Your task to perform on an android device: Open my contact list Image 0: 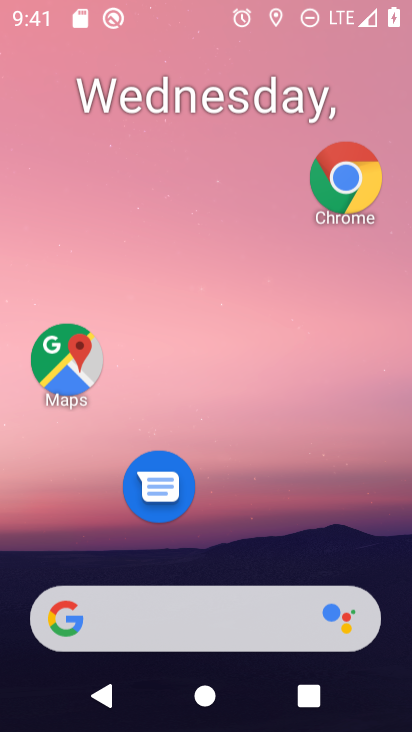
Step 0: click (310, 91)
Your task to perform on an android device: Open my contact list Image 1: 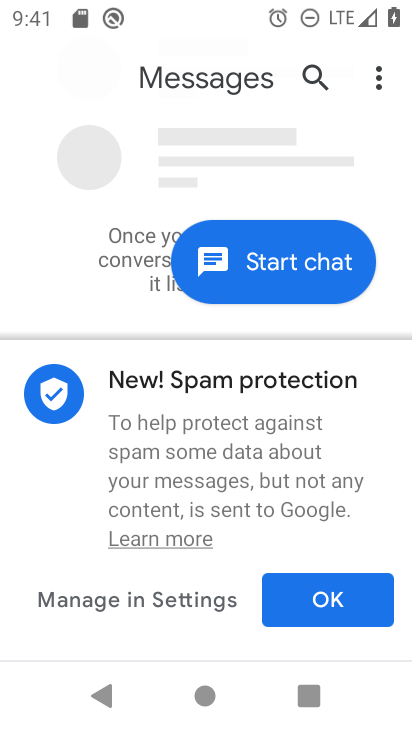
Step 1: press home button
Your task to perform on an android device: Open my contact list Image 2: 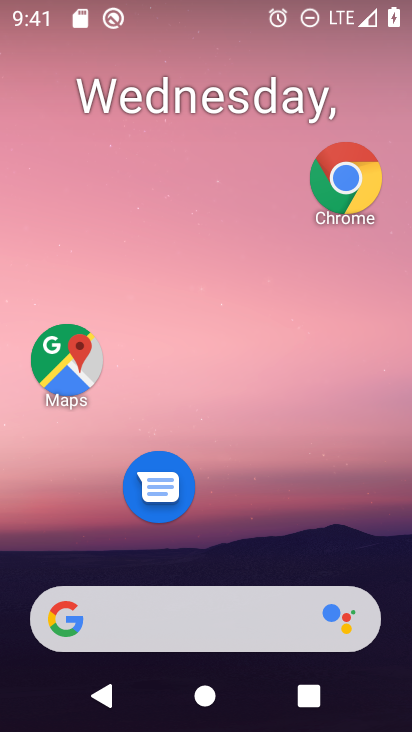
Step 2: drag from (271, 626) to (258, 236)
Your task to perform on an android device: Open my contact list Image 3: 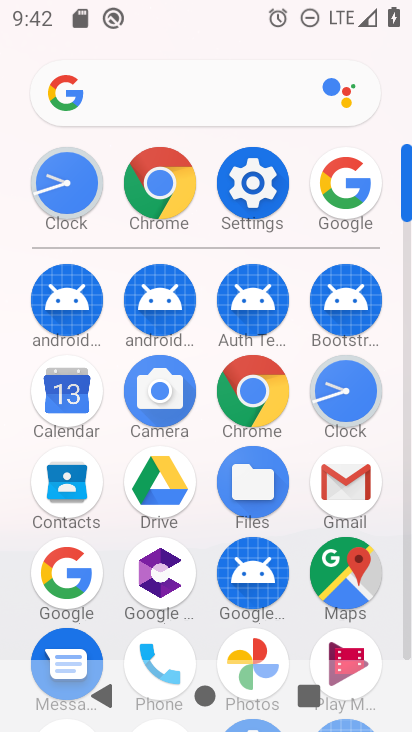
Step 3: click (70, 493)
Your task to perform on an android device: Open my contact list Image 4: 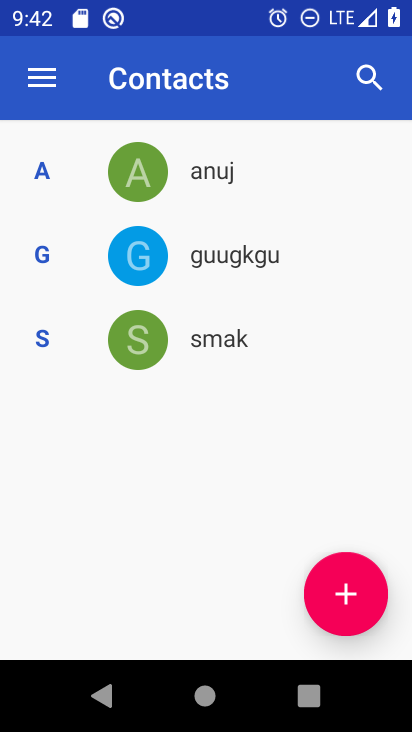
Step 4: task complete